Your task to perform on an android device: Open the web browser Image 0: 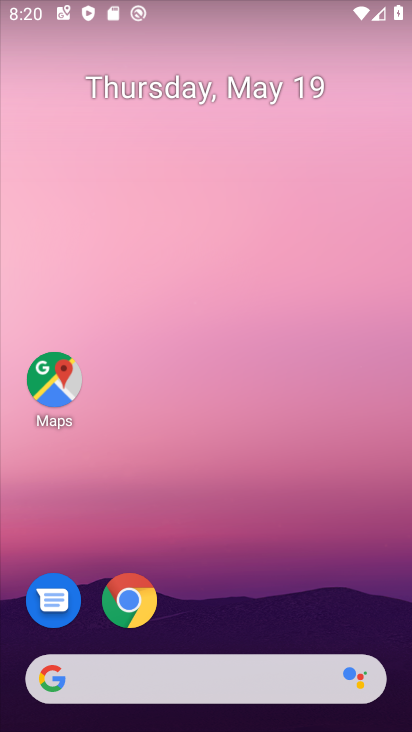
Step 0: click (131, 598)
Your task to perform on an android device: Open the web browser Image 1: 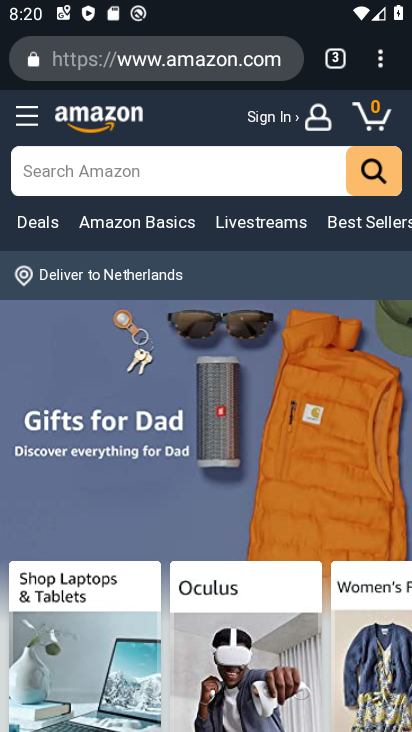
Step 1: task complete